Your task to perform on an android device: all mails in gmail Image 0: 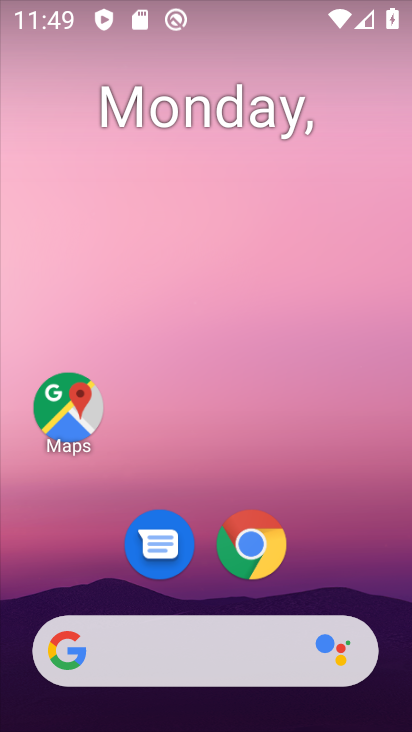
Step 0: drag from (321, 529) to (321, 133)
Your task to perform on an android device: all mails in gmail Image 1: 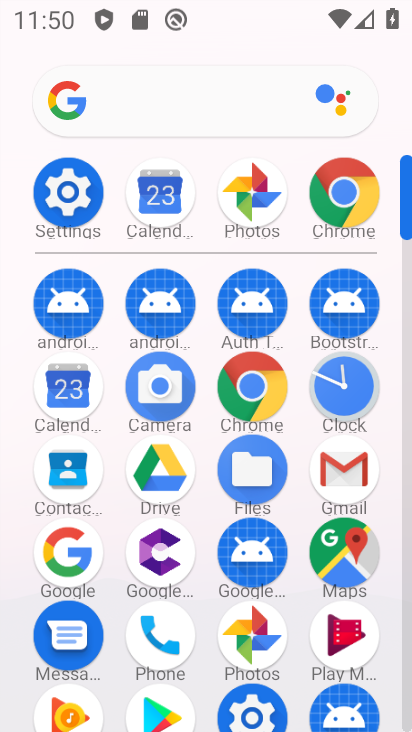
Step 1: click (359, 468)
Your task to perform on an android device: all mails in gmail Image 2: 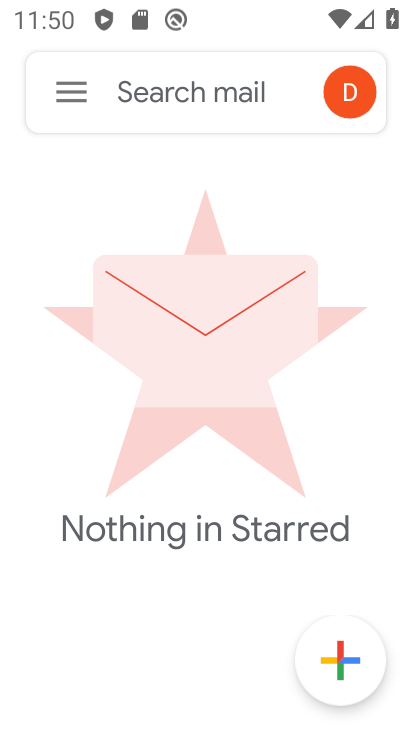
Step 2: click (79, 91)
Your task to perform on an android device: all mails in gmail Image 3: 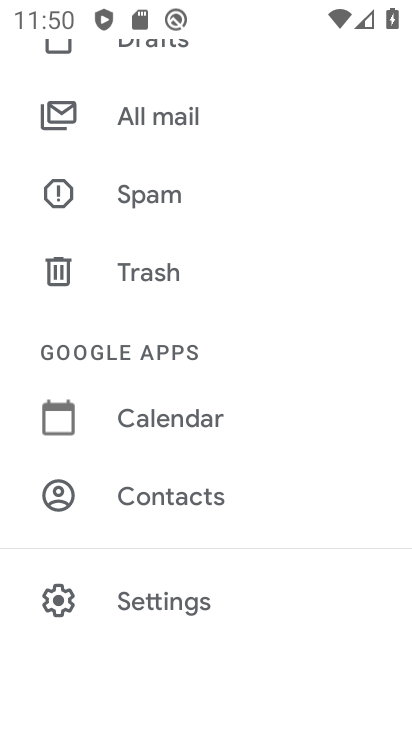
Step 3: click (156, 127)
Your task to perform on an android device: all mails in gmail Image 4: 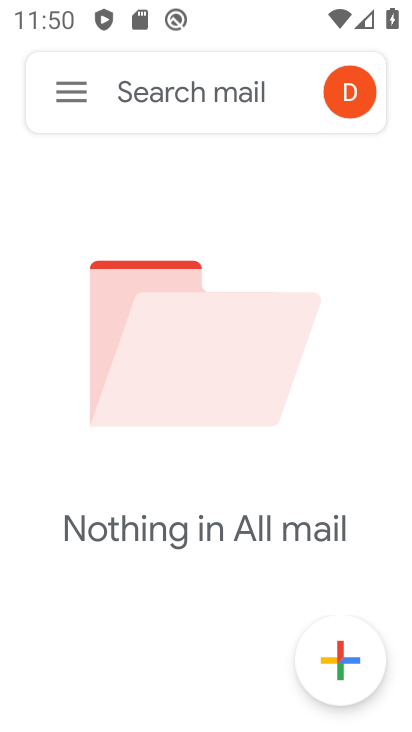
Step 4: task complete